Your task to perform on an android device: Do I have any events this weekend? Image 0: 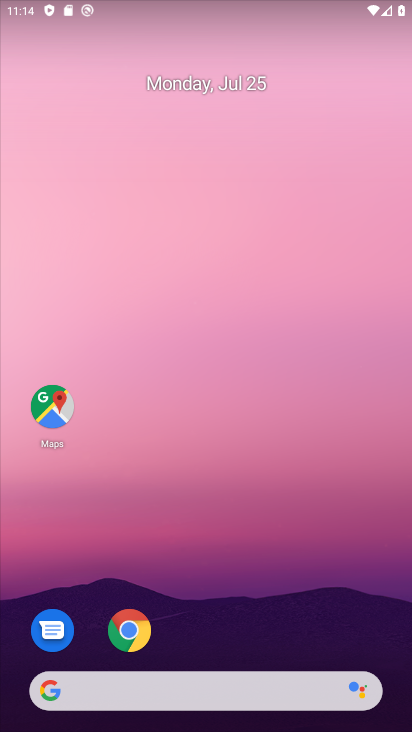
Step 0: drag from (303, 660) to (302, 11)
Your task to perform on an android device: Do I have any events this weekend? Image 1: 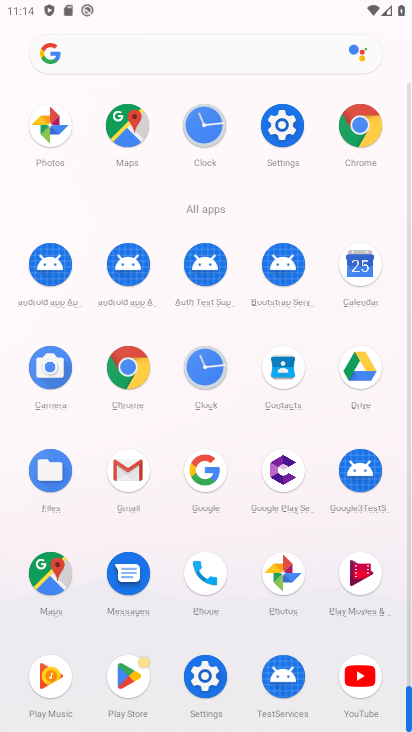
Step 1: click (362, 259)
Your task to perform on an android device: Do I have any events this weekend? Image 2: 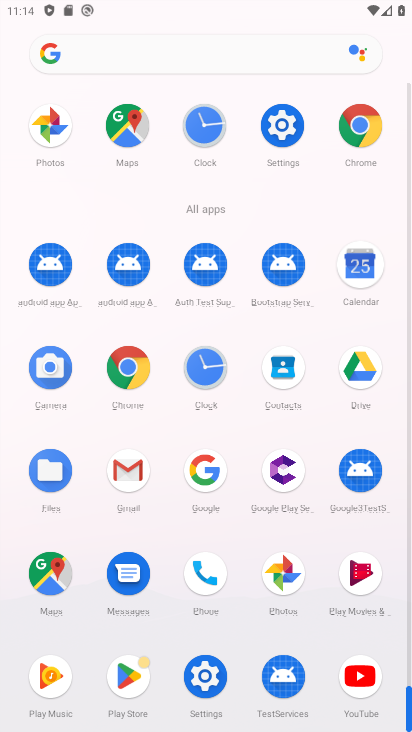
Step 2: click (360, 257)
Your task to perform on an android device: Do I have any events this weekend? Image 3: 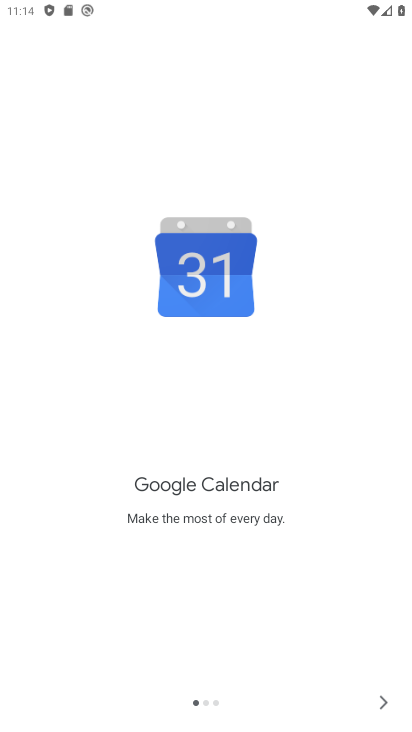
Step 3: click (382, 702)
Your task to perform on an android device: Do I have any events this weekend? Image 4: 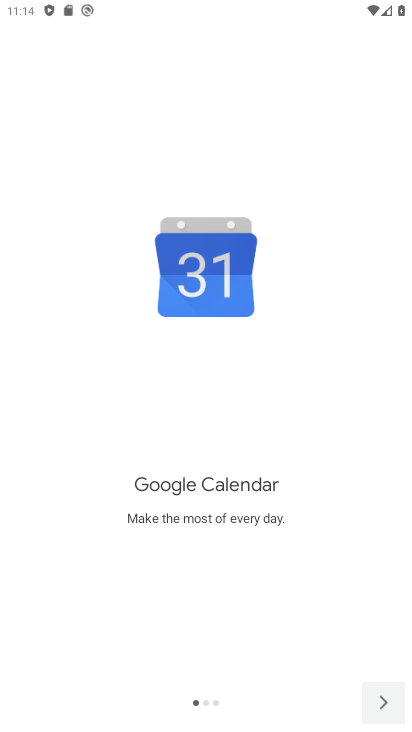
Step 4: click (382, 702)
Your task to perform on an android device: Do I have any events this weekend? Image 5: 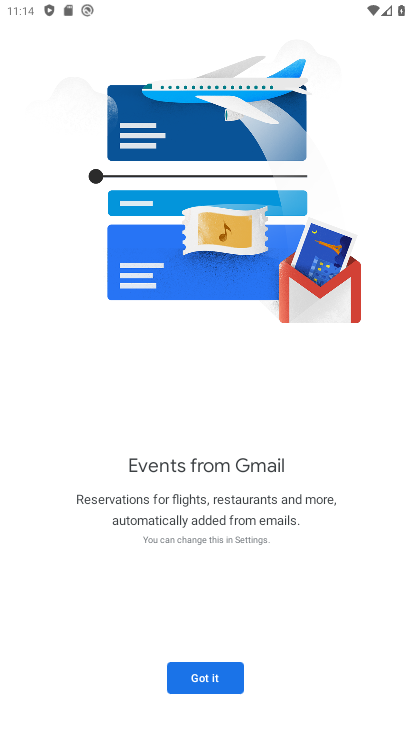
Step 5: click (219, 678)
Your task to perform on an android device: Do I have any events this weekend? Image 6: 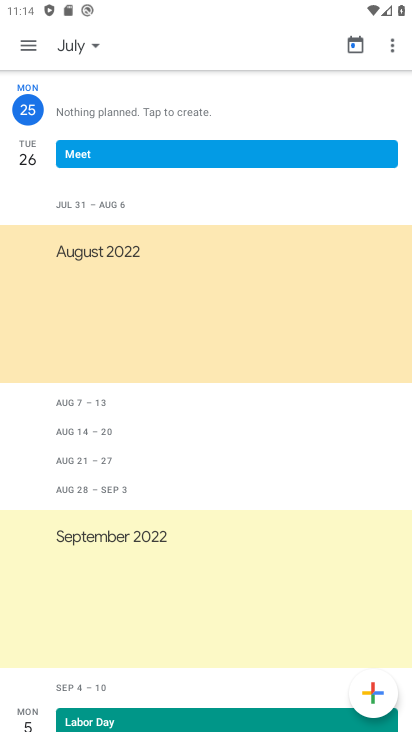
Step 6: click (88, 45)
Your task to perform on an android device: Do I have any events this weekend? Image 7: 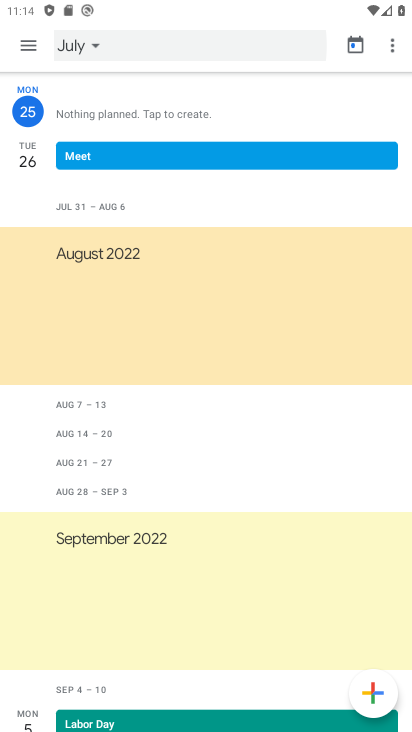
Step 7: click (88, 45)
Your task to perform on an android device: Do I have any events this weekend? Image 8: 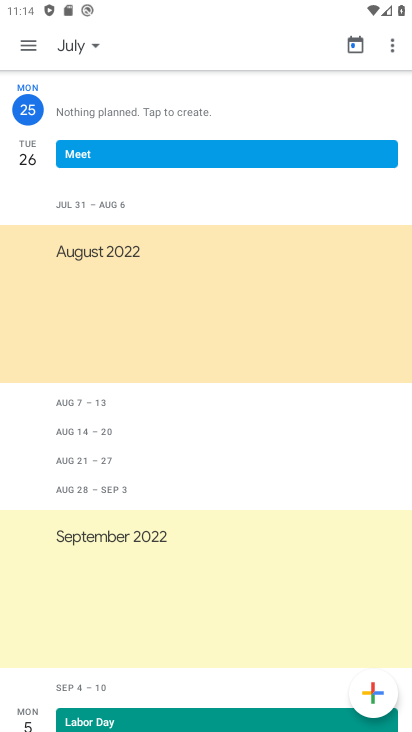
Step 8: click (89, 41)
Your task to perform on an android device: Do I have any events this weekend? Image 9: 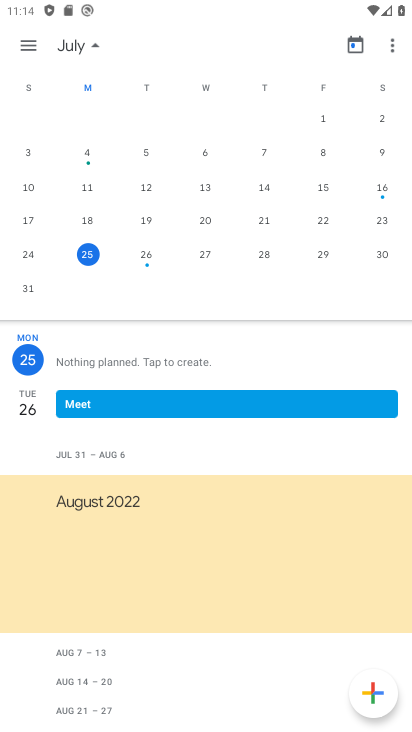
Step 9: click (266, 256)
Your task to perform on an android device: Do I have any events this weekend? Image 10: 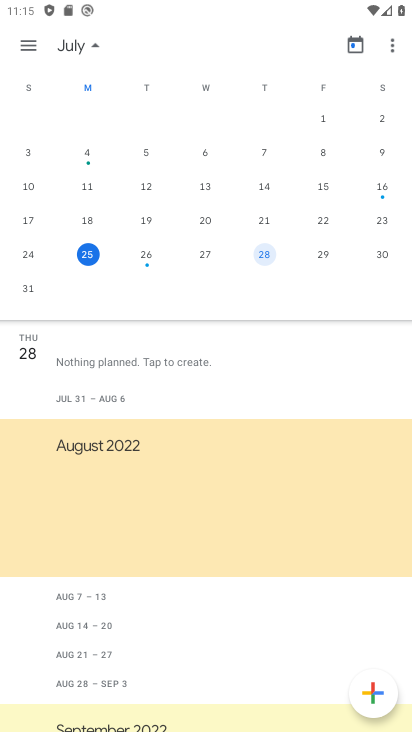
Step 10: click (319, 257)
Your task to perform on an android device: Do I have any events this weekend? Image 11: 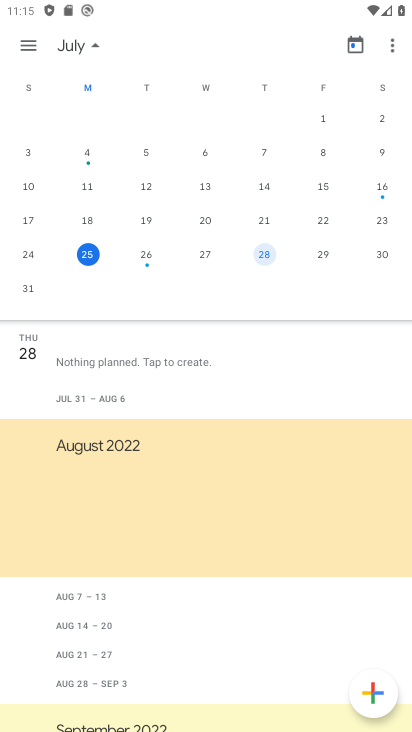
Step 11: click (321, 251)
Your task to perform on an android device: Do I have any events this weekend? Image 12: 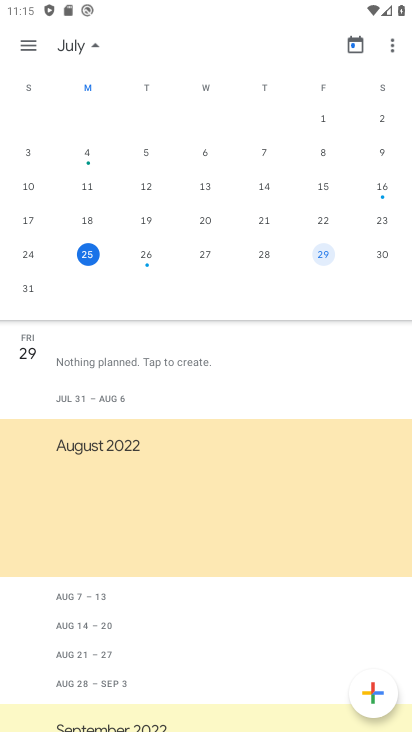
Step 12: click (322, 252)
Your task to perform on an android device: Do I have any events this weekend? Image 13: 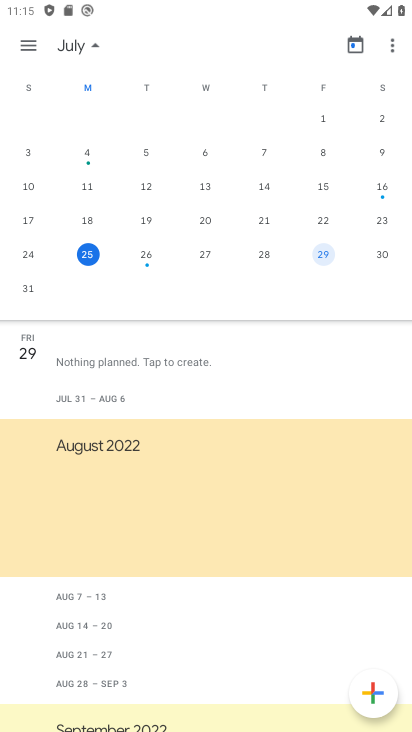
Step 13: task complete